Your task to perform on an android device: Open my contact list Image 0: 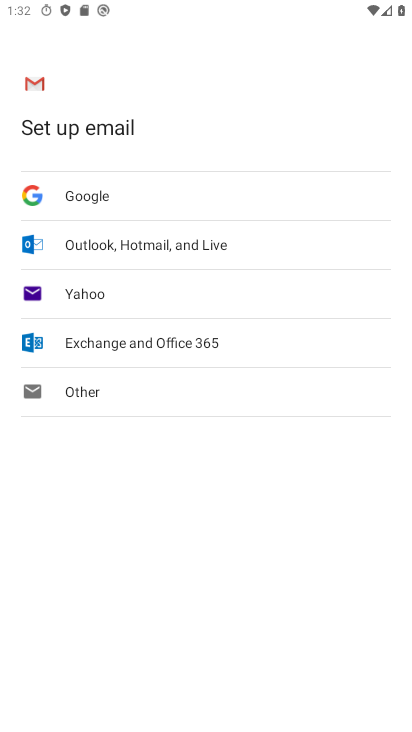
Step 0: drag from (257, 695) to (183, 115)
Your task to perform on an android device: Open my contact list Image 1: 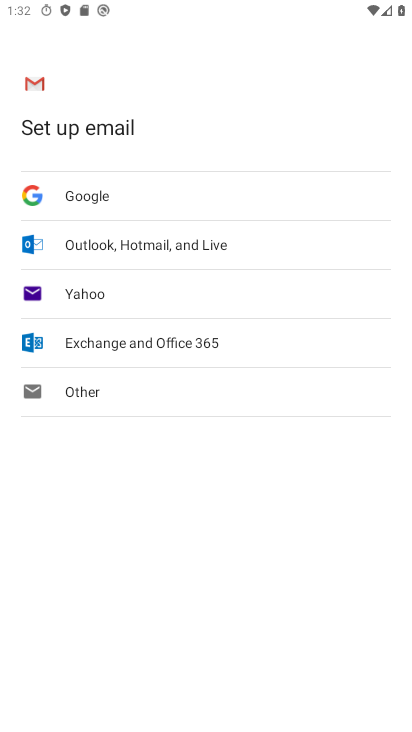
Step 1: press home button
Your task to perform on an android device: Open my contact list Image 2: 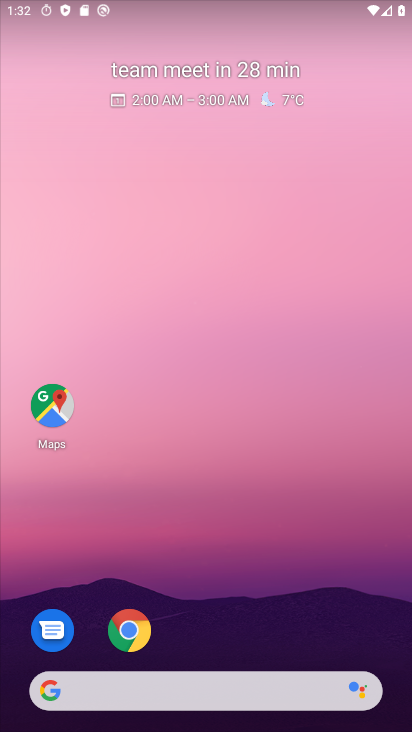
Step 2: drag from (217, 683) to (183, 319)
Your task to perform on an android device: Open my contact list Image 3: 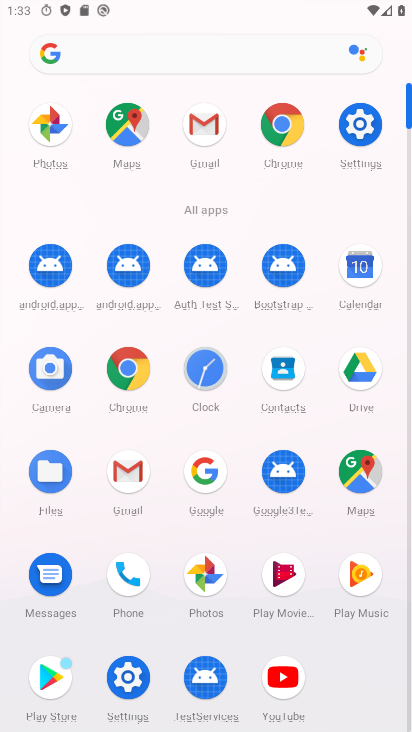
Step 3: click (296, 379)
Your task to perform on an android device: Open my contact list Image 4: 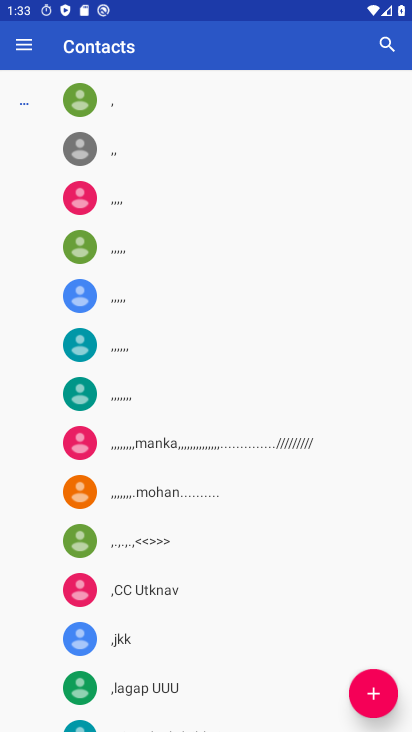
Step 4: task complete